Your task to perform on an android device: open wifi settings Image 0: 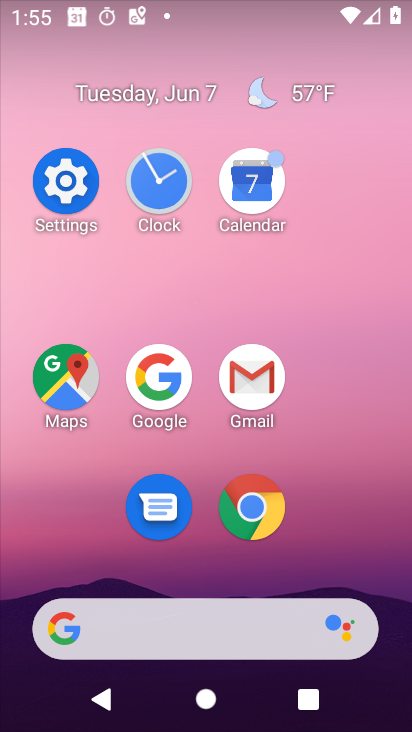
Step 0: click (80, 172)
Your task to perform on an android device: open wifi settings Image 1: 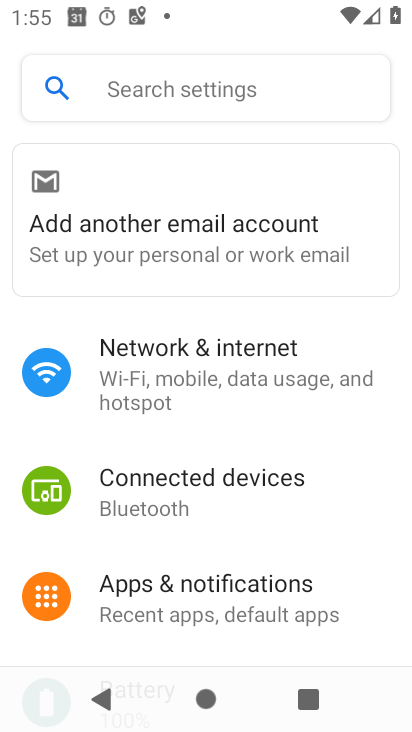
Step 1: click (238, 392)
Your task to perform on an android device: open wifi settings Image 2: 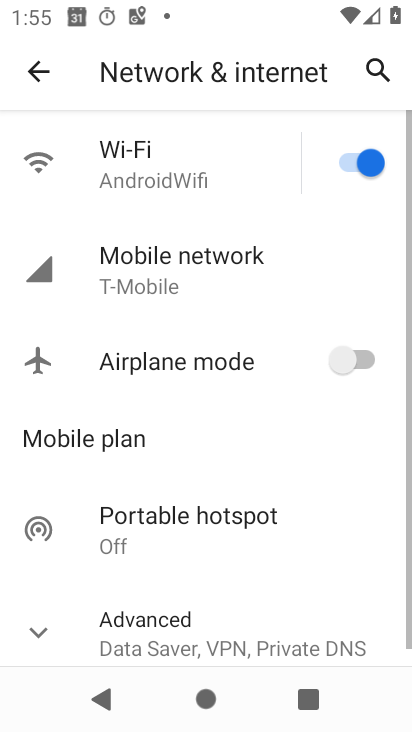
Step 2: click (148, 153)
Your task to perform on an android device: open wifi settings Image 3: 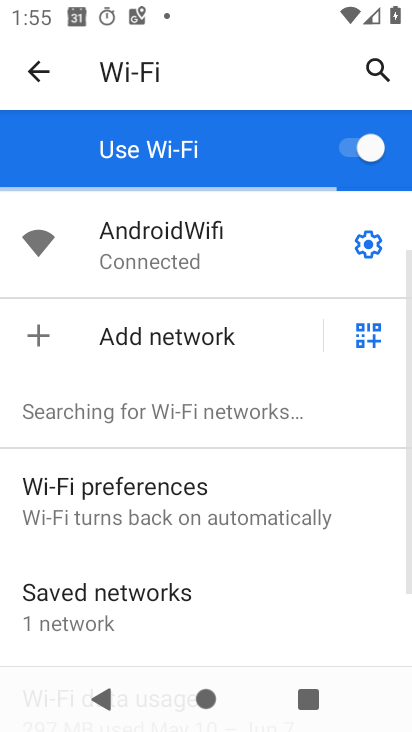
Step 3: click (361, 229)
Your task to perform on an android device: open wifi settings Image 4: 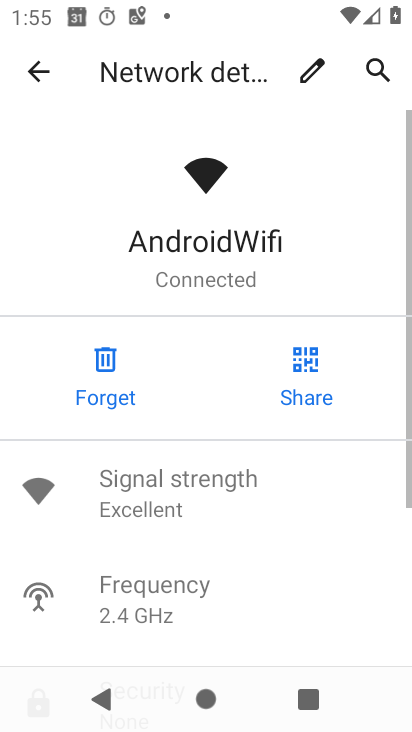
Step 4: task complete